Your task to perform on an android device: Open location settings Image 0: 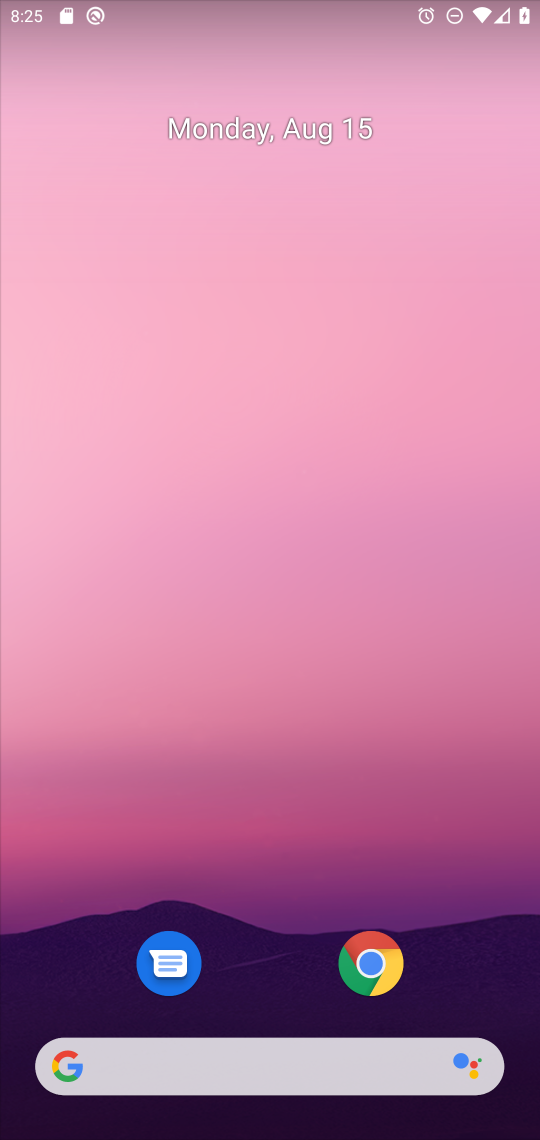
Step 0: drag from (230, 972) to (185, 26)
Your task to perform on an android device: Open location settings Image 1: 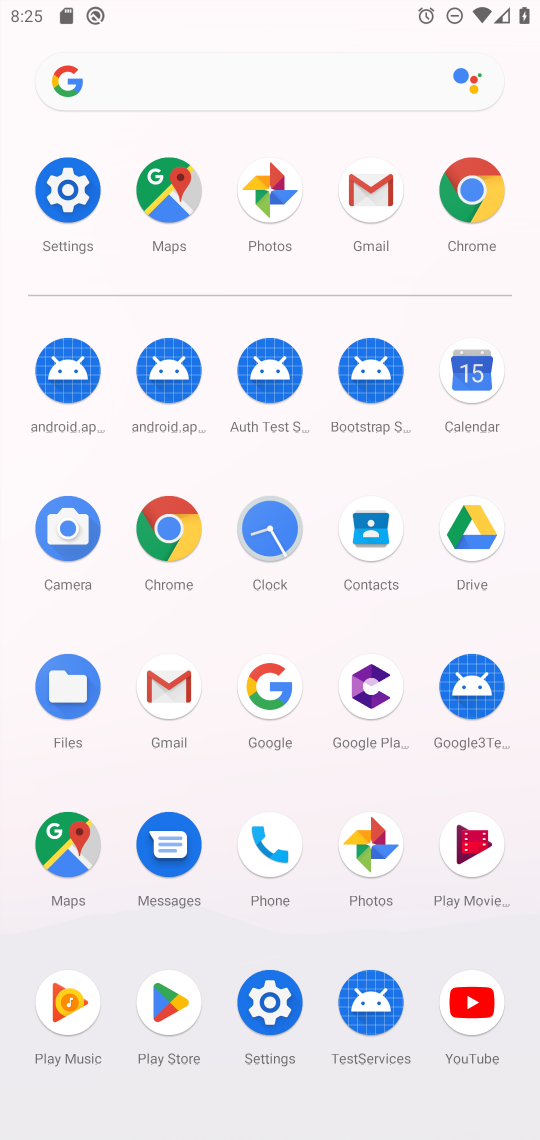
Step 1: click (78, 165)
Your task to perform on an android device: Open location settings Image 2: 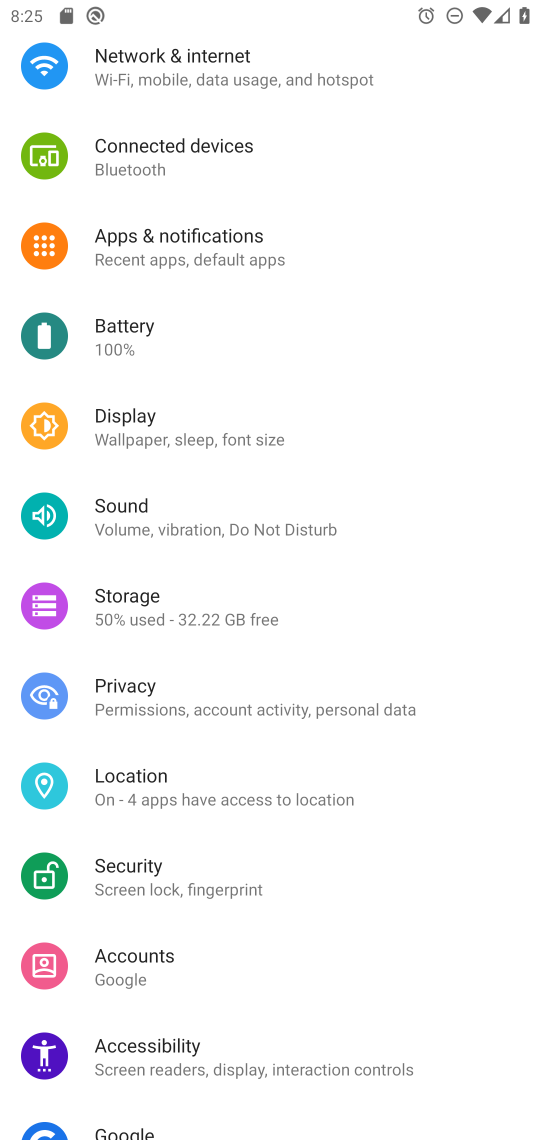
Step 2: click (139, 796)
Your task to perform on an android device: Open location settings Image 3: 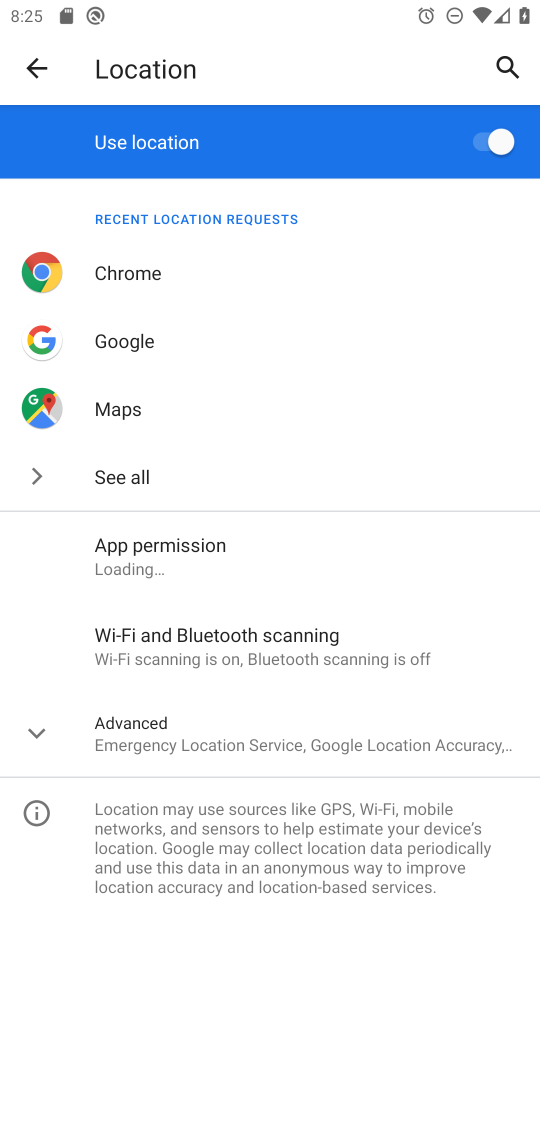
Step 3: task complete